Your task to perform on an android device: Clear the cart on ebay. Search for "panasonic triple a" on ebay, select the first entry, add it to the cart, then select checkout. Image 0: 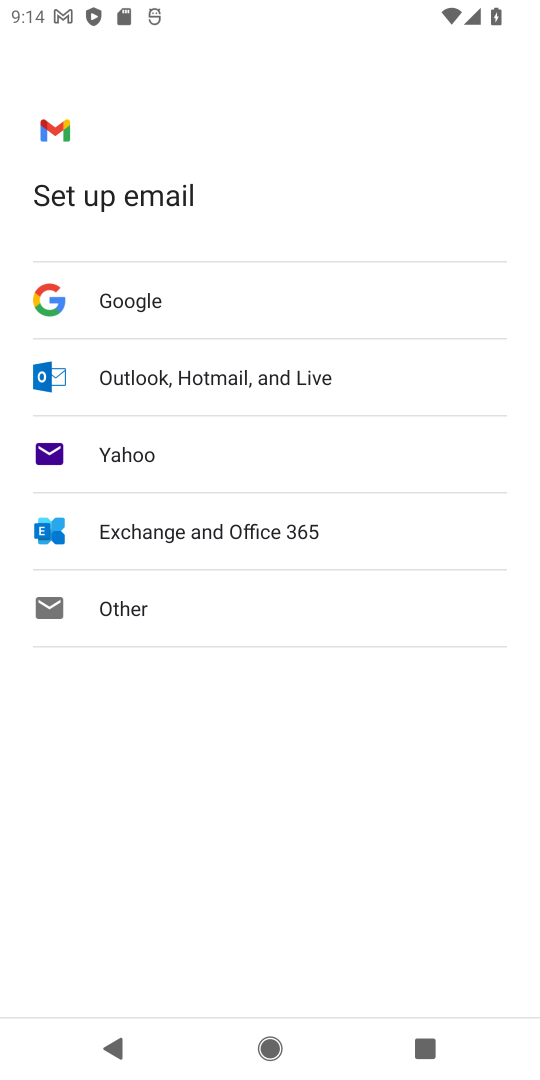
Step 0: press home button
Your task to perform on an android device: Clear the cart on ebay. Search for "panasonic triple a" on ebay, select the first entry, add it to the cart, then select checkout. Image 1: 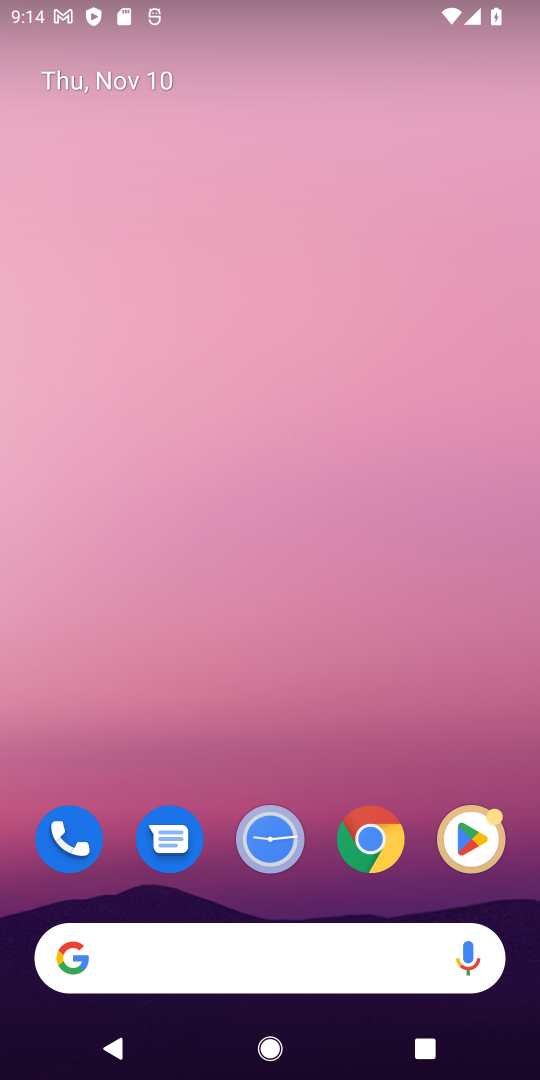
Step 1: click (392, 825)
Your task to perform on an android device: Clear the cart on ebay. Search for "panasonic triple a" on ebay, select the first entry, add it to the cart, then select checkout. Image 2: 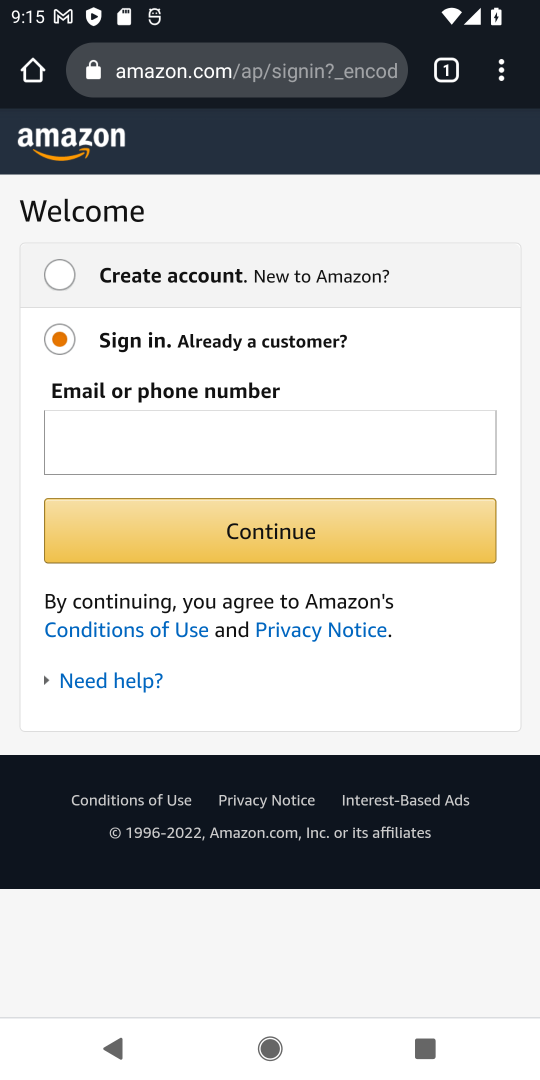
Step 2: click (245, 77)
Your task to perform on an android device: Clear the cart on ebay. Search for "panasonic triple a" on ebay, select the first entry, add it to the cart, then select checkout. Image 3: 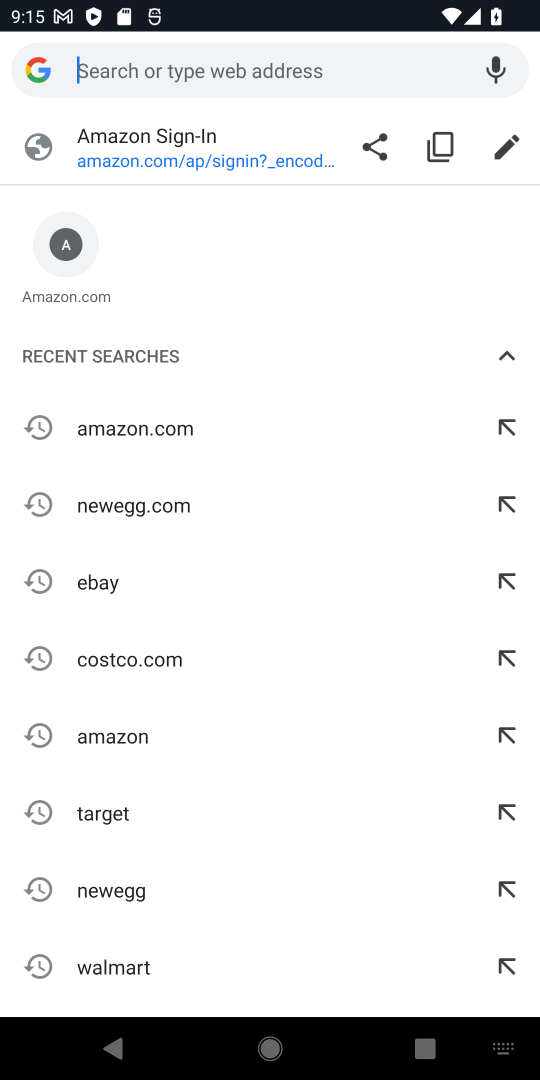
Step 3: type "ebay"
Your task to perform on an android device: Clear the cart on ebay. Search for "panasonic triple a" on ebay, select the first entry, add it to the cart, then select checkout. Image 4: 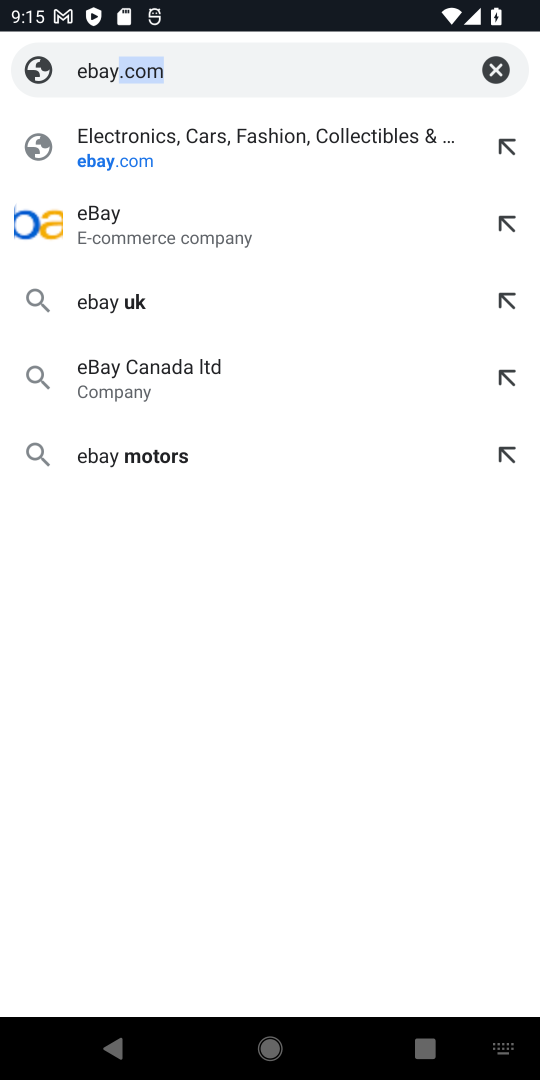
Step 4: click (241, 66)
Your task to perform on an android device: Clear the cart on ebay. Search for "panasonic triple a" on ebay, select the first entry, add it to the cart, then select checkout. Image 5: 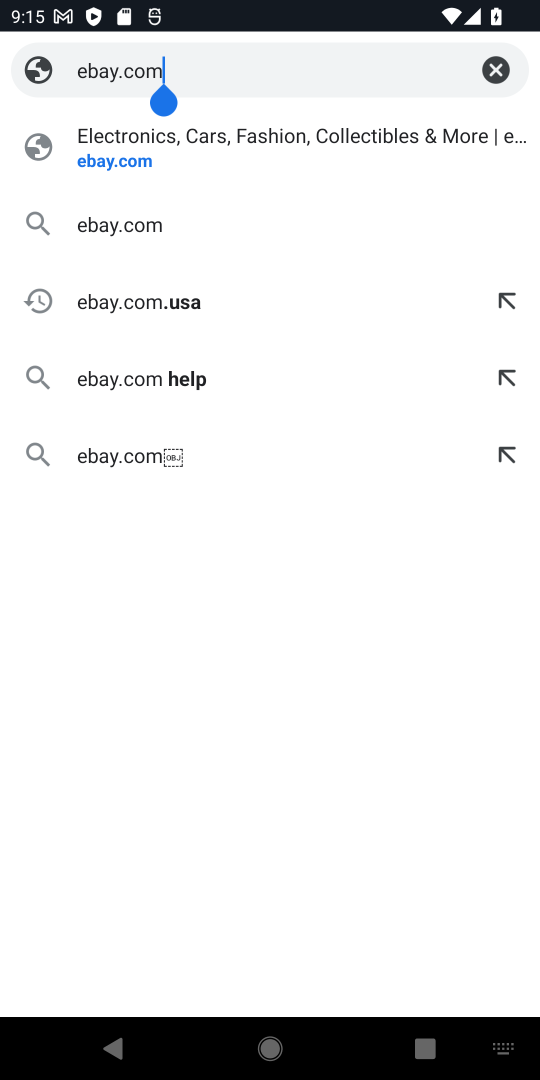
Step 5: click (134, 221)
Your task to perform on an android device: Clear the cart on ebay. Search for "panasonic triple a" on ebay, select the first entry, add it to the cart, then select checkout. Image 6: 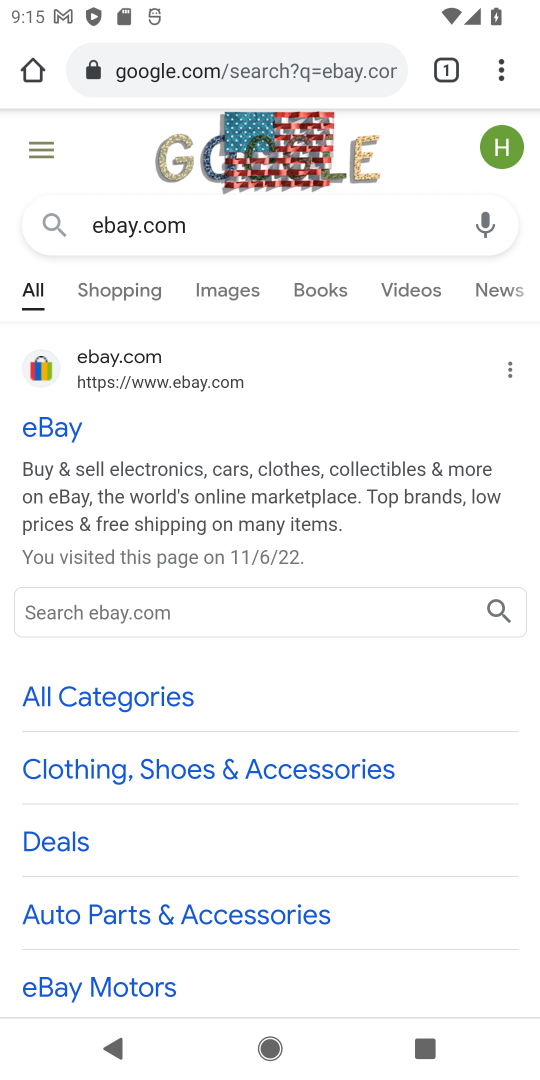
Step 6: click (170, 391)
Your task to perform on an android device: Clear the cart on ebay. Search for "panasonic triple a" on ebay, select the first entry, add it to the cart, then select checkout. Image 7: 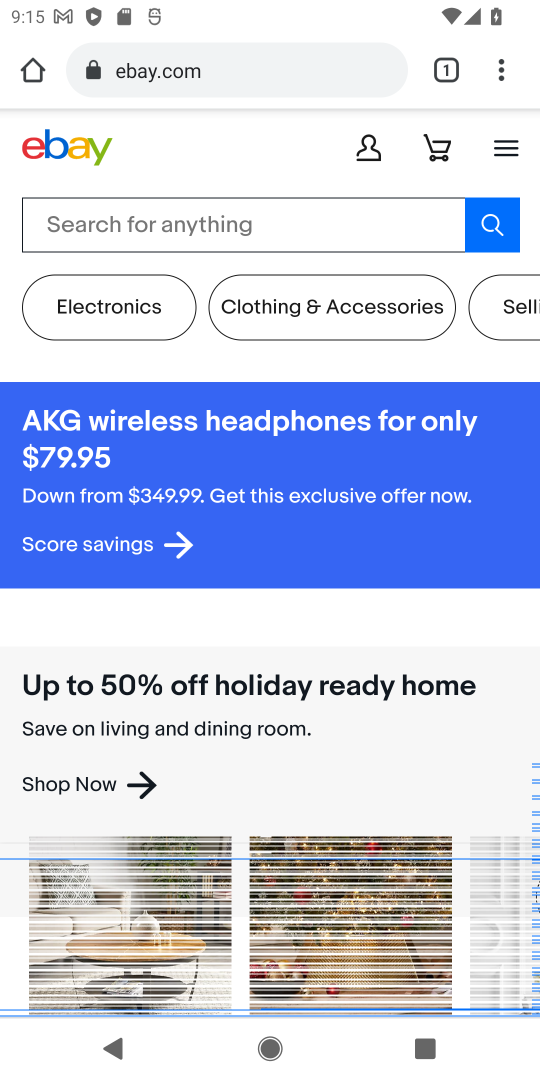
Step 7: click (254, 226)
Your task to perform on an android device: Clear the cart on ebay. Search for "panasonic triple a" on ebay, select the first entry, add it to the cart, then select checkout. Image 8: 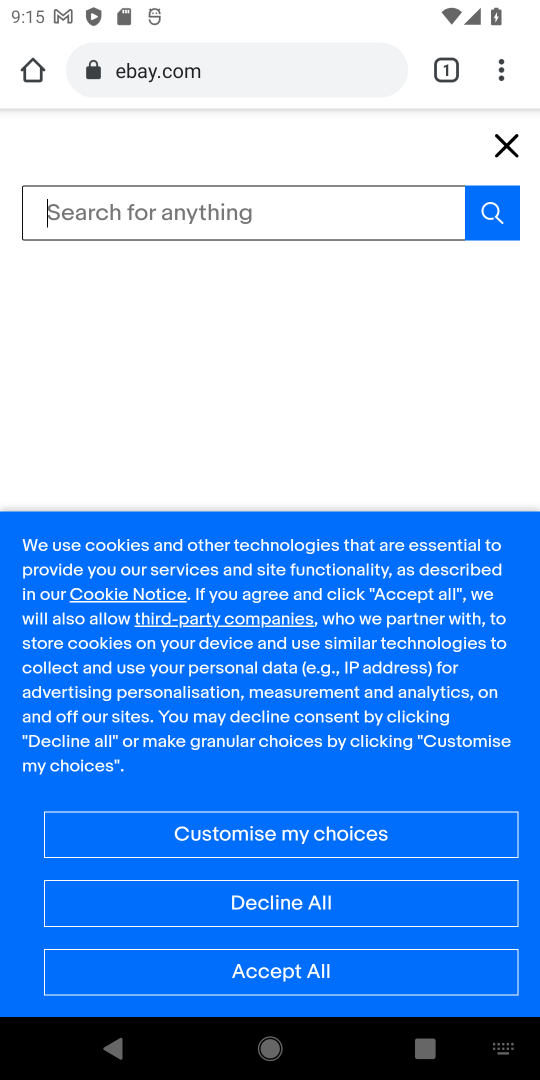
Step 8: type "panasonic triple a"
Your task to perform on an android device: Clear the cart on ebay. Search for "panasonic triple a" on ebay, select the first entry, add it to the cart, then select checkout. Image 9: 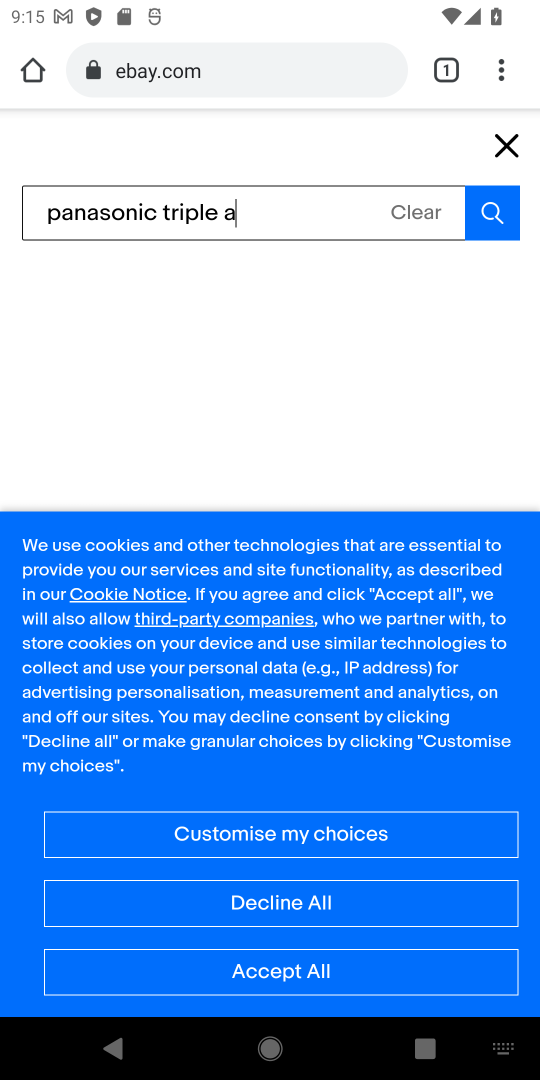
Step 9: click (293, 975)
Your task to perform on an android device: Clear the cart on ebay. Search for "panasonic triple a" on ebay, select the first entry, add it to the cart, then select checkout. Image 10: 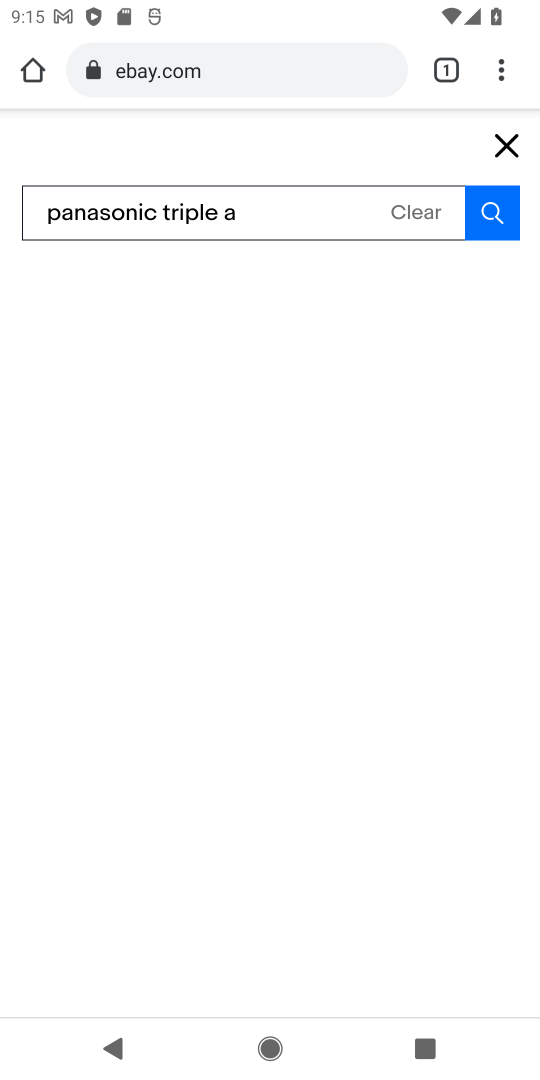
Step 10: click (478, 429)
Your task to perform on an android device: Clear the cart on ebay. Search for "panasonic triple a" on ebay, select the first entry, add it to the cart, then select checkout. Image 11: 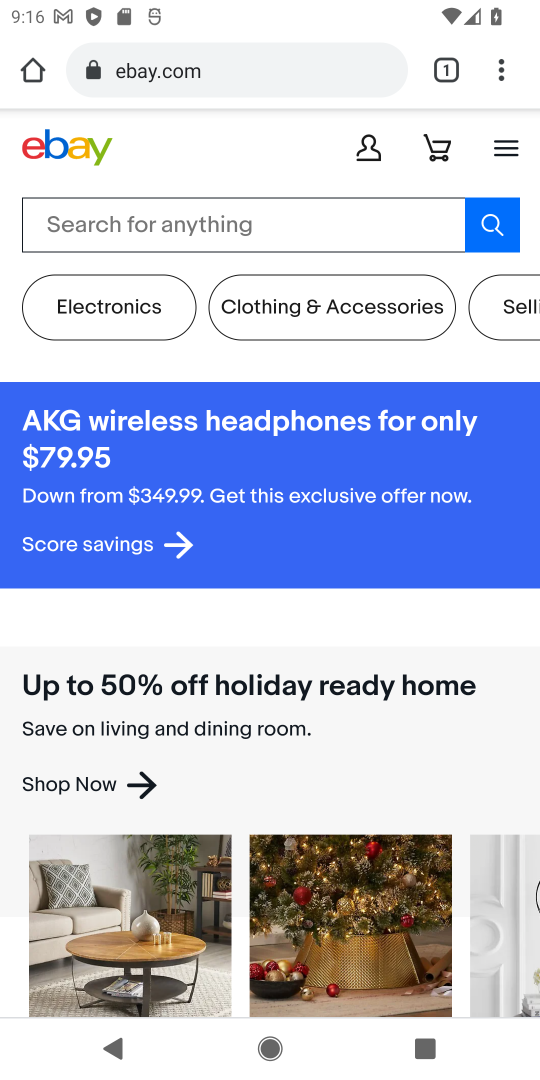
Step 11: task complete